Your task to perform on an android device: open app "DuckDuckGo Privacy Browser" (install if not already installed) Image 0: 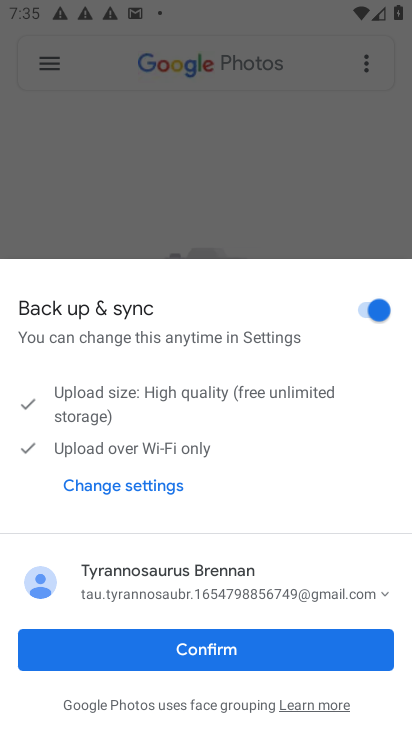
Step 0: press home button
Your task to perform on an android device: open app "DuckDuckGo Privacy Browser" (install if not already installed) Image 1: 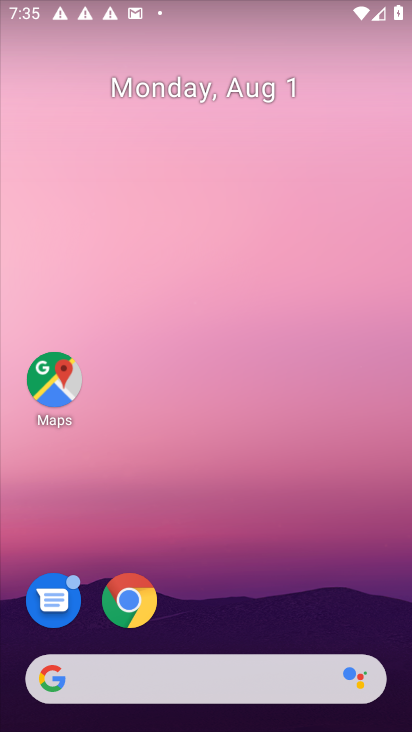
Step 1: drag from (227, 56) to (231, 13)
Your task to perform on an android device: open app "DuckDuckGo Privacy Browser" (install if not already installed) Image 2: 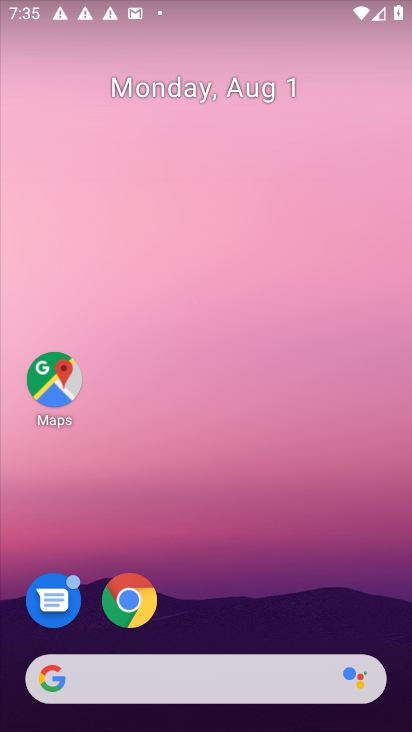
Step 2: drag from (196, 627) to (179, 90)
Your task to perform on an android device: open app "DuckDuckGo Privacy Browser" (install if not already installed) Image 3: 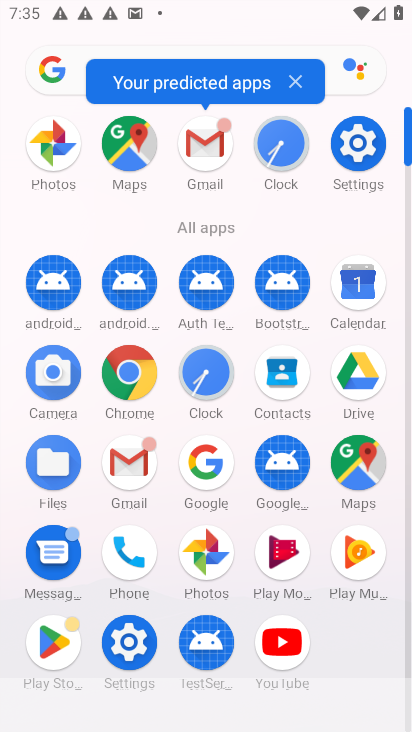
Step 3: click (42, 639)
Your task to perform on an android device: open app "DuckDuckGo Privacy Browser" (install if not already installed) Image 4: 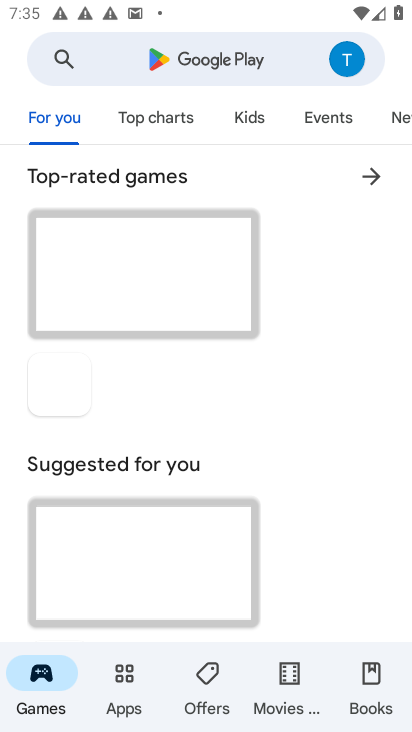
Step 4: click (178, 56)
Your task to perform on an android device: open app "DuckDuckGo Privacy Browser" (install if not already installed) Image 5: 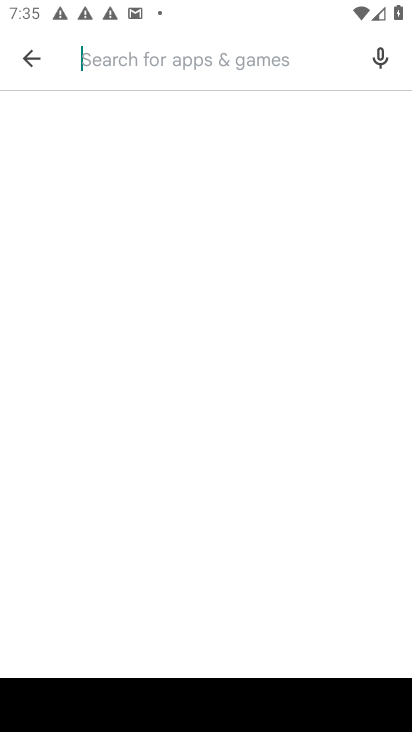
Step 5: type "duckduckgo"
Your task to perform on an android device: open app "DuckDuckGo Privacy Browser" (install if not already installed) Image 6: 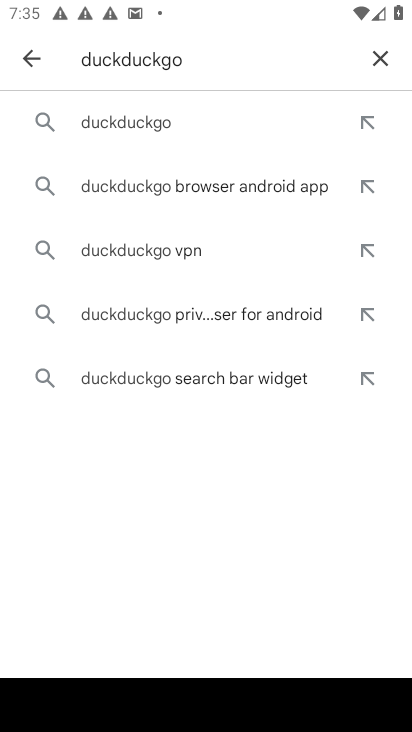
Step 6: click (151, 117)
Your task to perform on an android device: open app "DuckDuckGo Privacy Browser" (install if not already installed) Image 7: 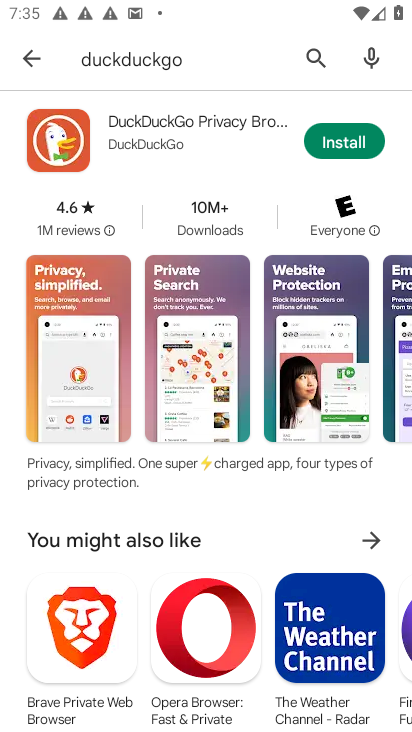
Step 7: click (362, 147)
Your task to perform on an android device: open app "DuckDuckGo Privacy Browser" (install if not already installed) Image 8: 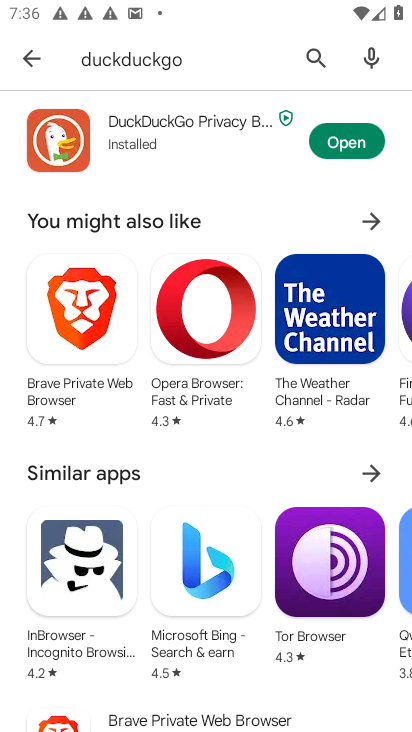
Step 8: click (360, 145)
Your task to perform on an android device: open app "DuckDuckGo Privacy Browser" (install if not already installed) Image 9: 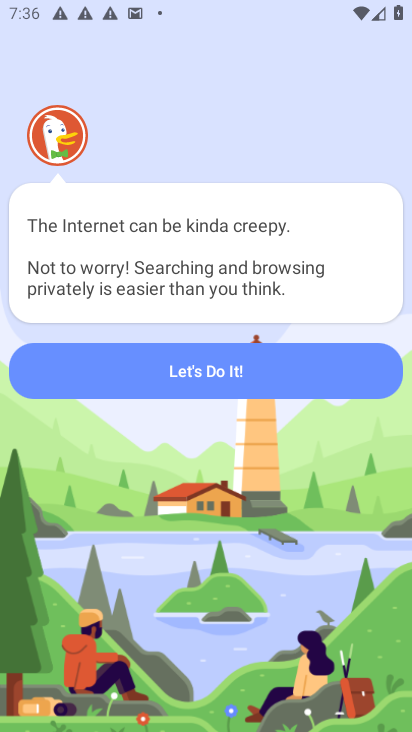
Step 9: click (260, 377)
Your task to perform on an android device: open app "DuckDuckGo Privacy Browser" (install if not already installed) Image 10: 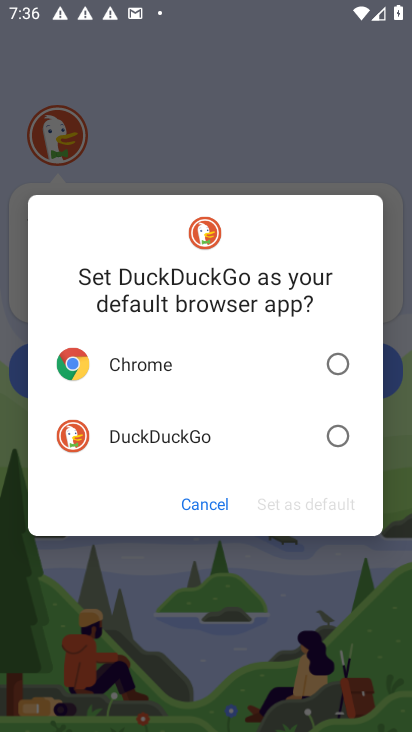
Step 10: click (335, 436)
Your task to perform on an android device: open app "DuckDuckGo Privacy Browser" (install if not already installed) Image 11: 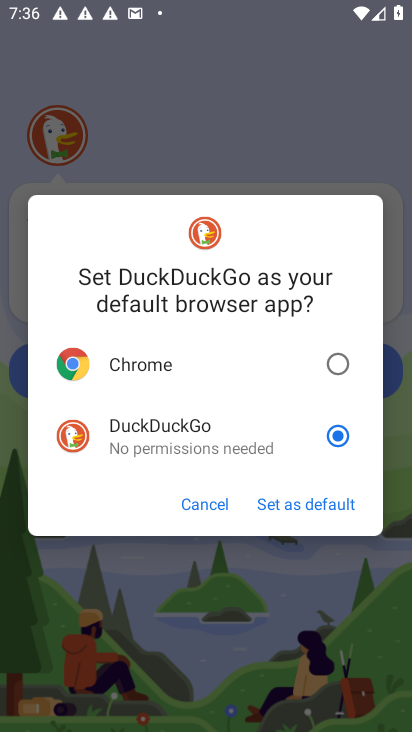
Step 11: click (321, 516)
Your task to perform on an android device: open app "DuckDuckGo Privacy Browser" (install if not already installed) Image 12: 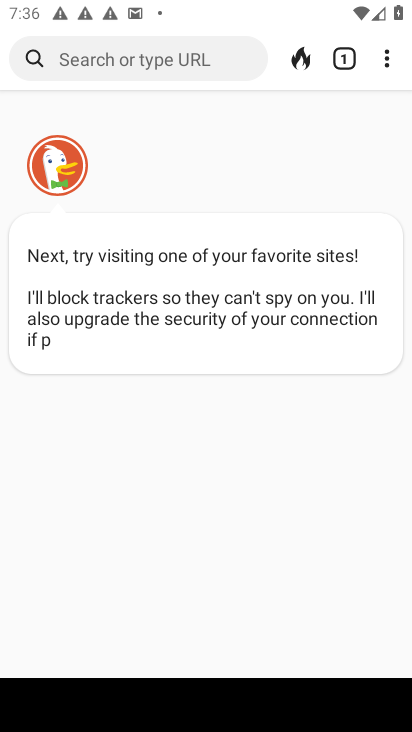
Step 12: task complete